Your task to perform on an android device: check google app version Image 0: 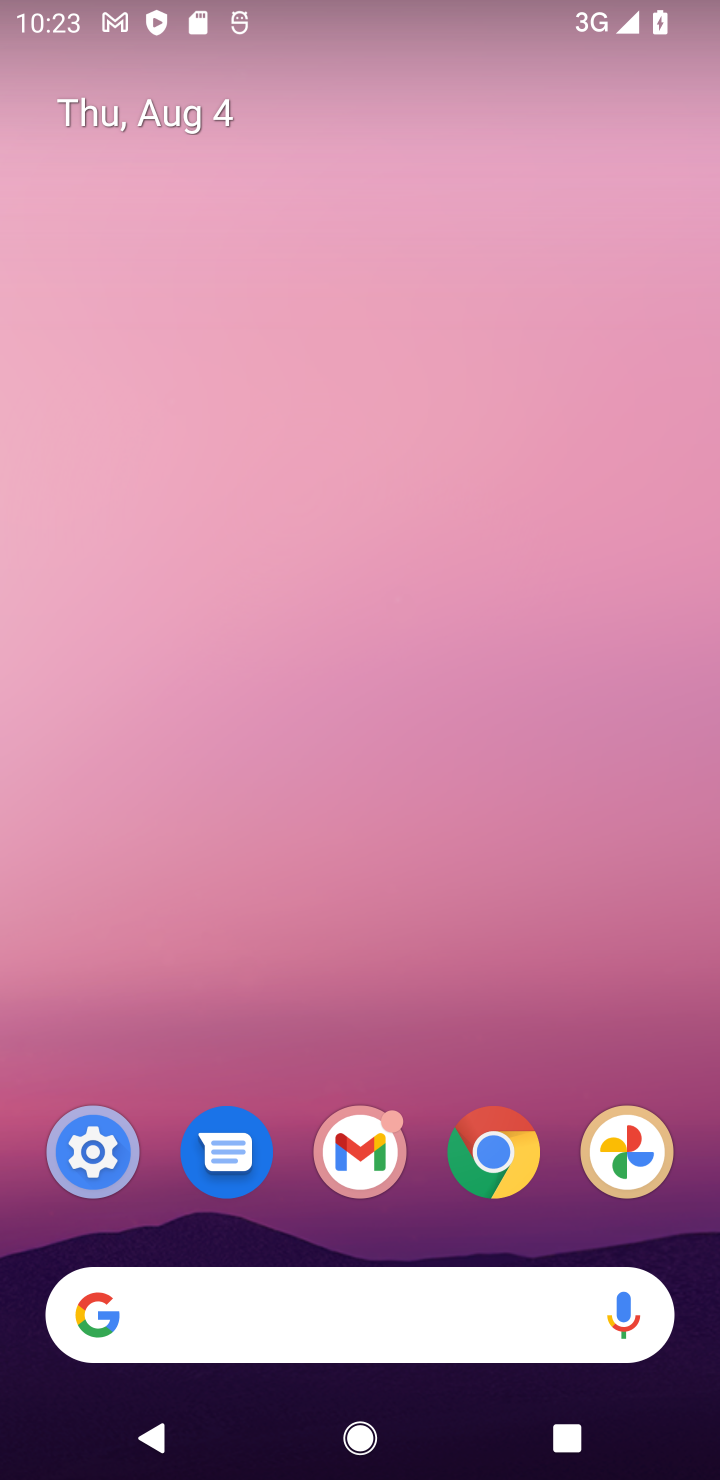
Step 0: click (95, 1323)
Your task to perform on an android device: check google app version Image 1: 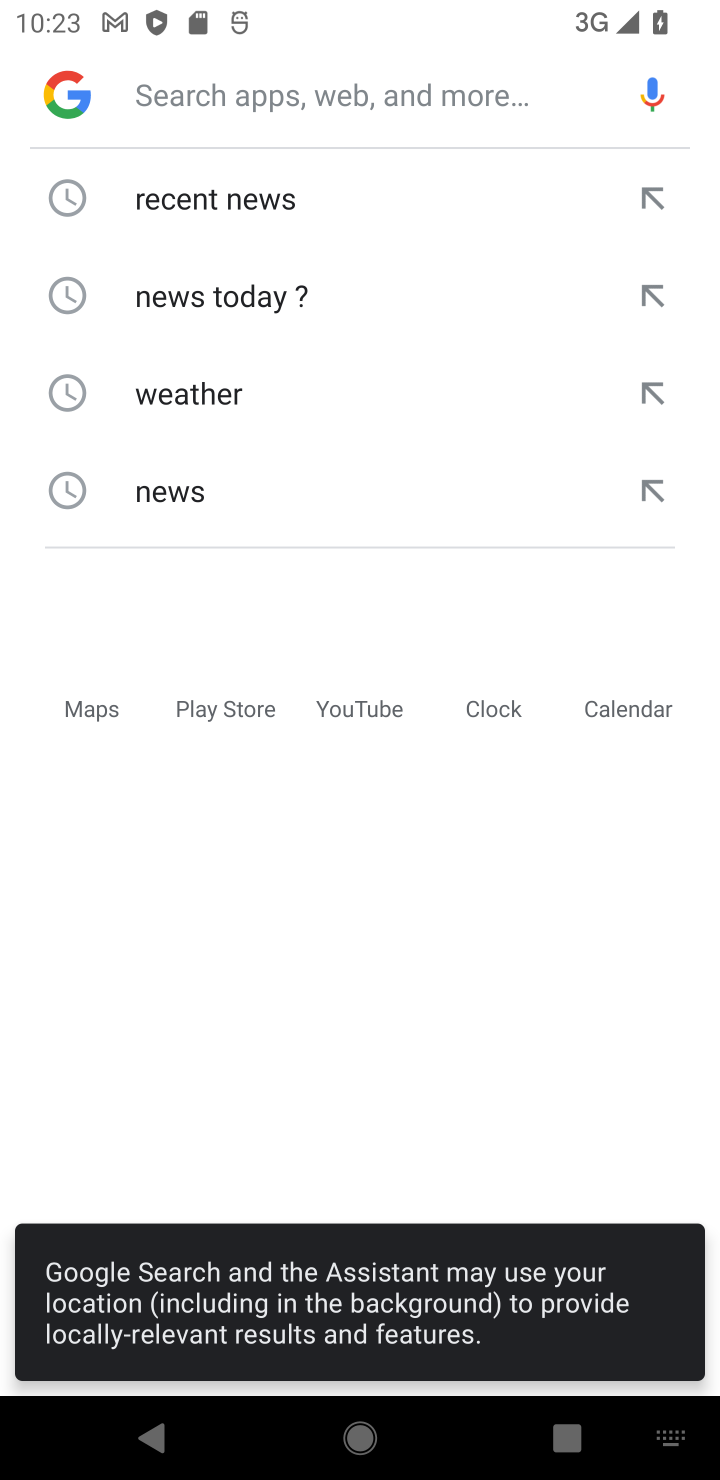
Step 1: click (69, 71)
Your task to perform on an android device: check google app version Image 2: 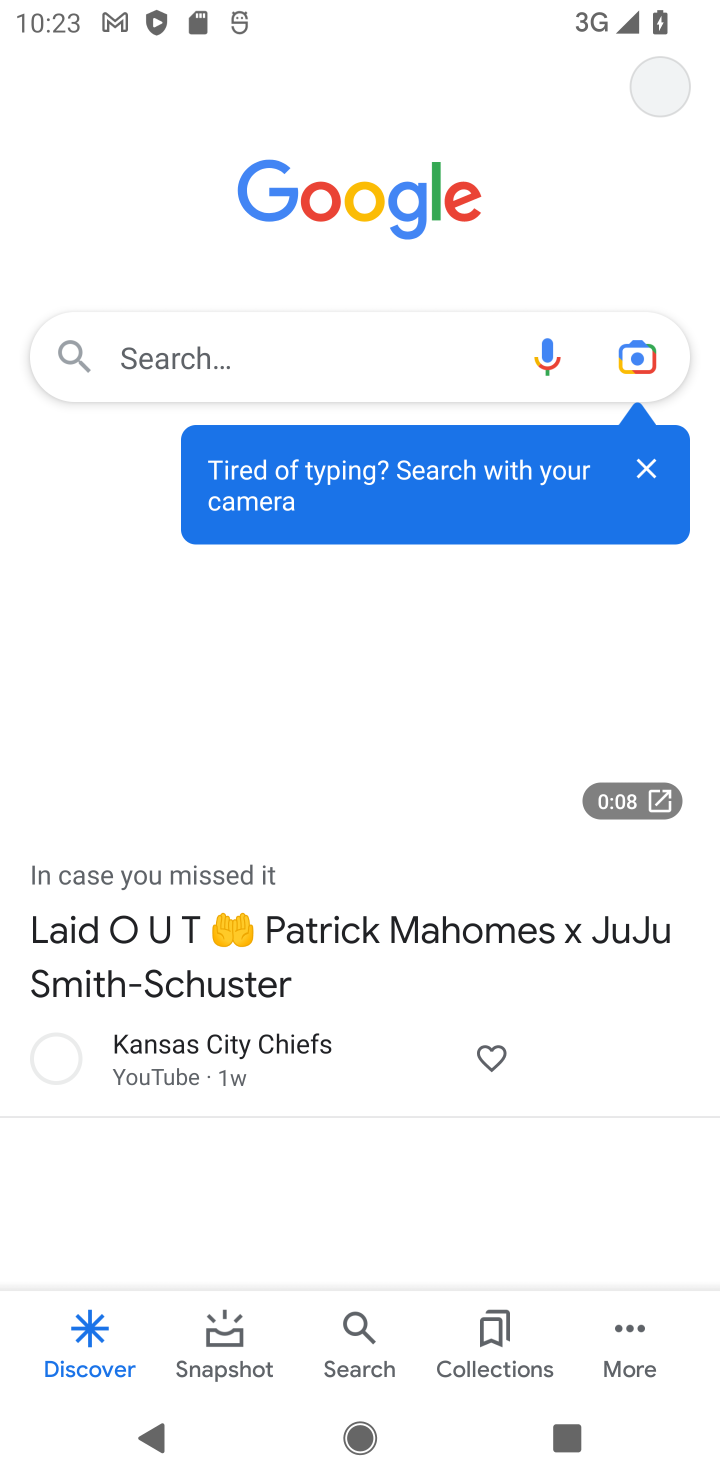
Step 2: click (623, 1334)
Your task to perform on an android device: check google app version Image 3: 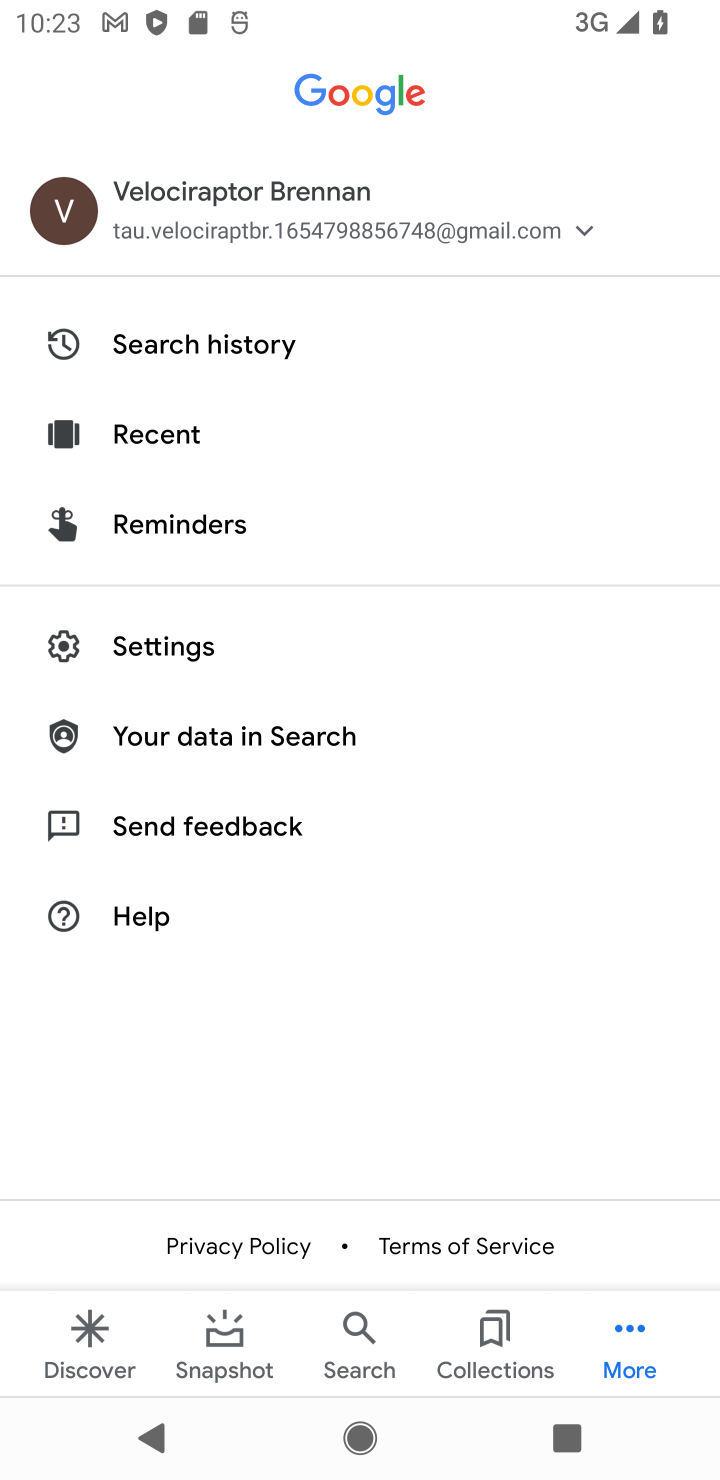
Step 3: click (180, 650)
Your task to perform on an android device: check google app version Image 4: 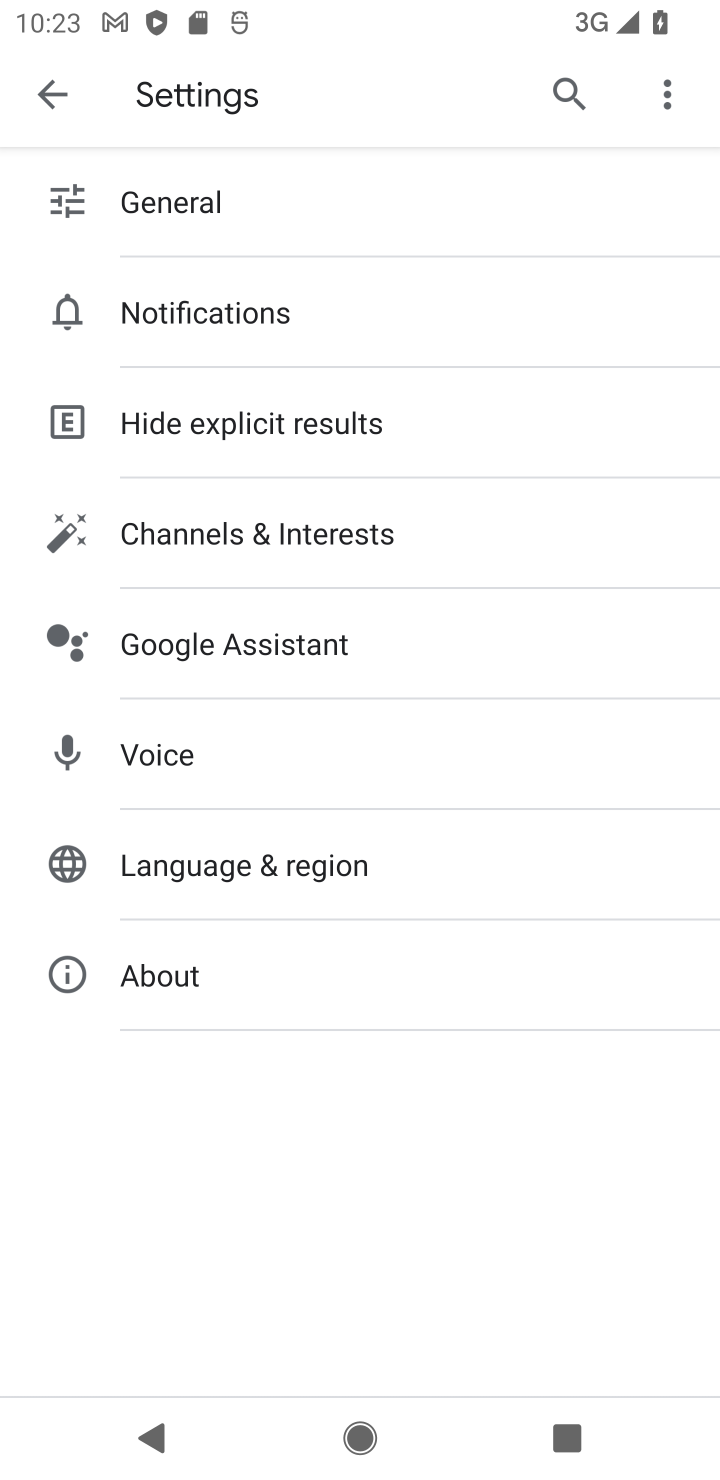
Step 4: click (198, 994)
Your task to perform on an android device: check google app version Image 5: 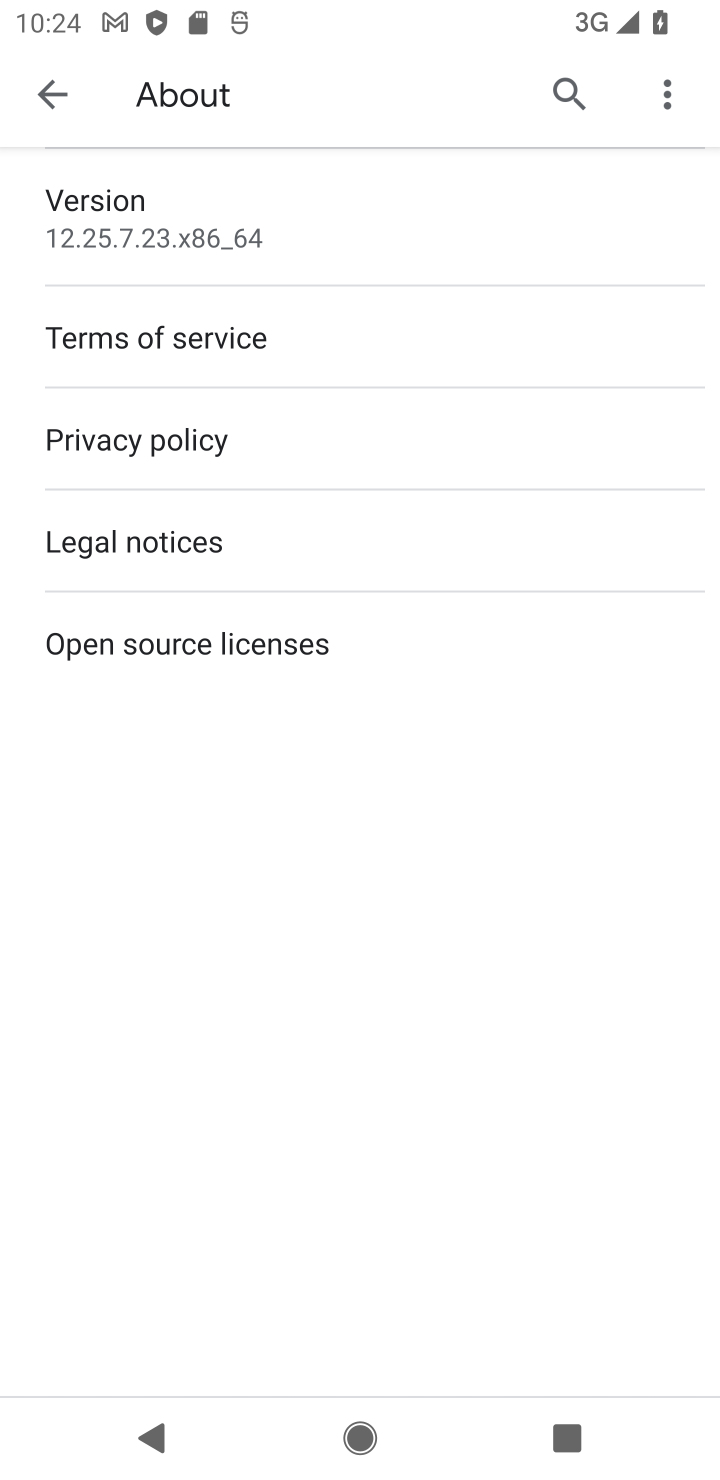
Step 5: task complete